Your task to perform on an android device: Open calendar and show me the second week of next month Image 0: 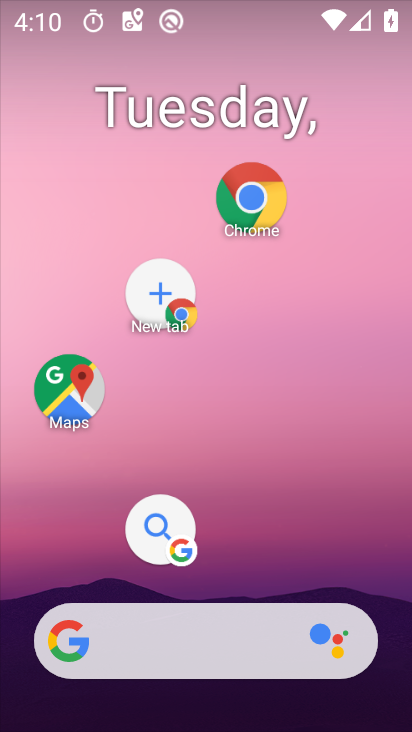
Step 0: drag from (260, 550) to (309, 185)
Your task to perform on an android device: Open calendar and show me the second week of next month Image 1: 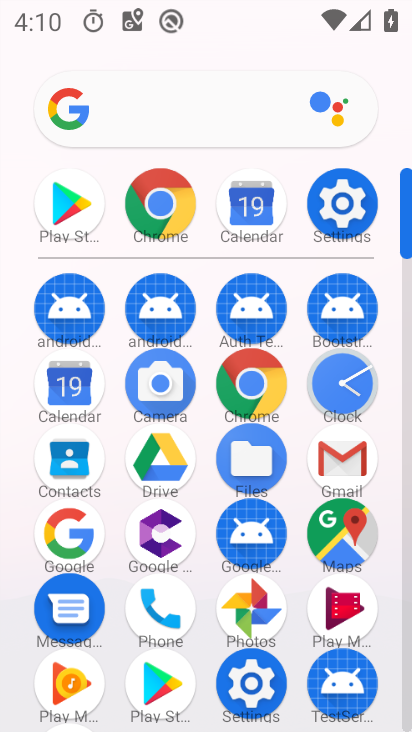
Step 1: click (61, 393)
Your task to perform on an android device: Open calendar and show me the second week of next month Image 2: 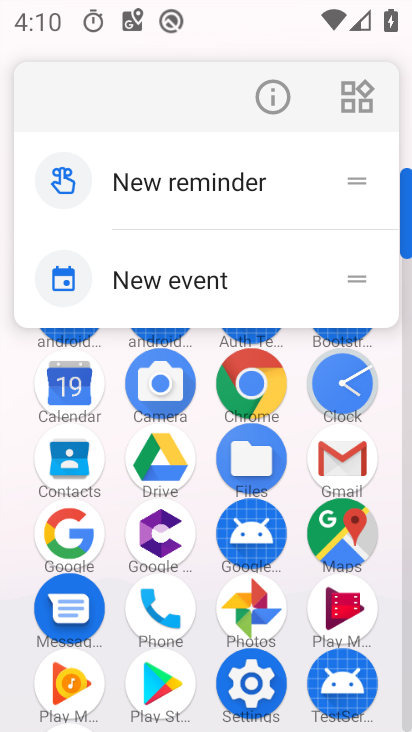
Step 2: click (61, 393)
Your task to perform on an android device: Open calendar and show me the second week of next month Image 3: 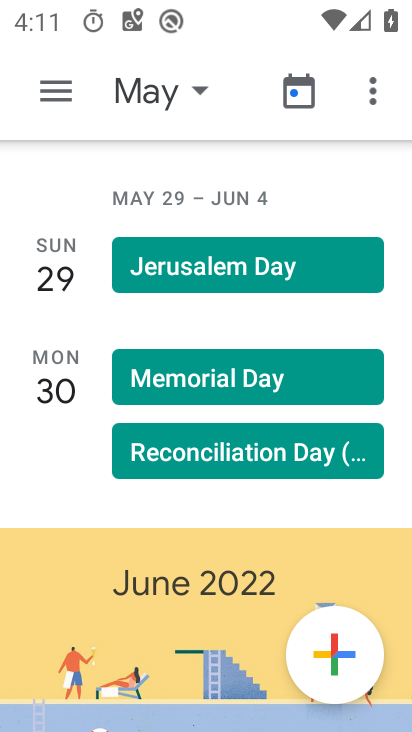
Step 3: click (157, 93)
Your task to perform on an android device: Open calendar and show me the second week of next month Image 4: 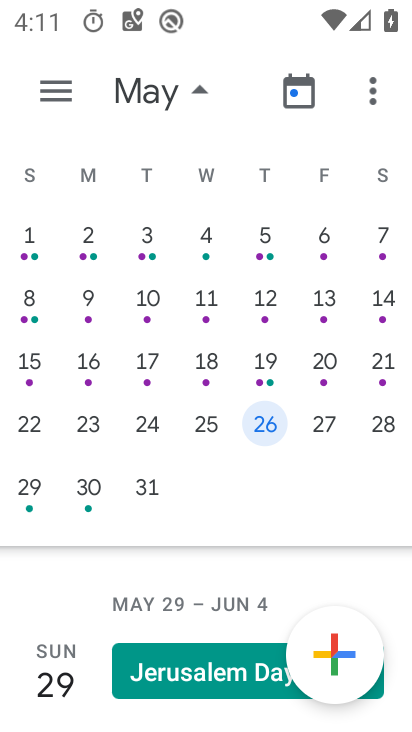
Step 4: click (30, 305)
Your task to perform on an android device: Open calendar and show me the second week of next month Image 5: 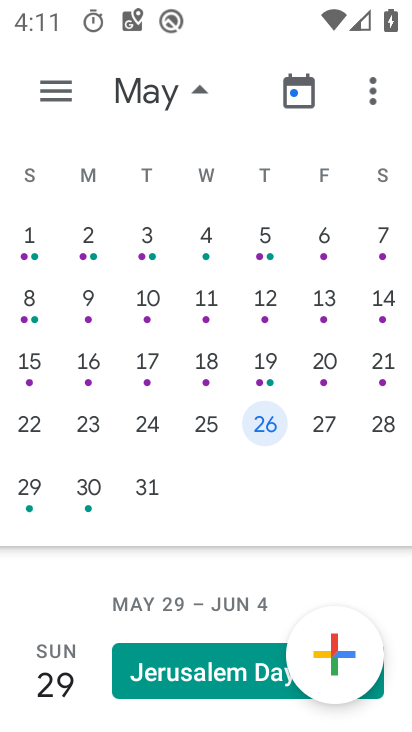
Step 5: click (31, 303)
Your task to perform on an android device: Open calendar and show me the second week of next month Image 6: 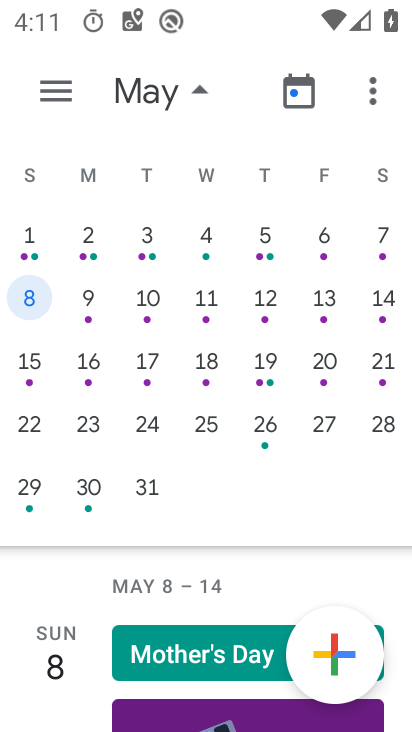
Step 6: task complete